Your task to perform on an android device: change timer sound Image 0: 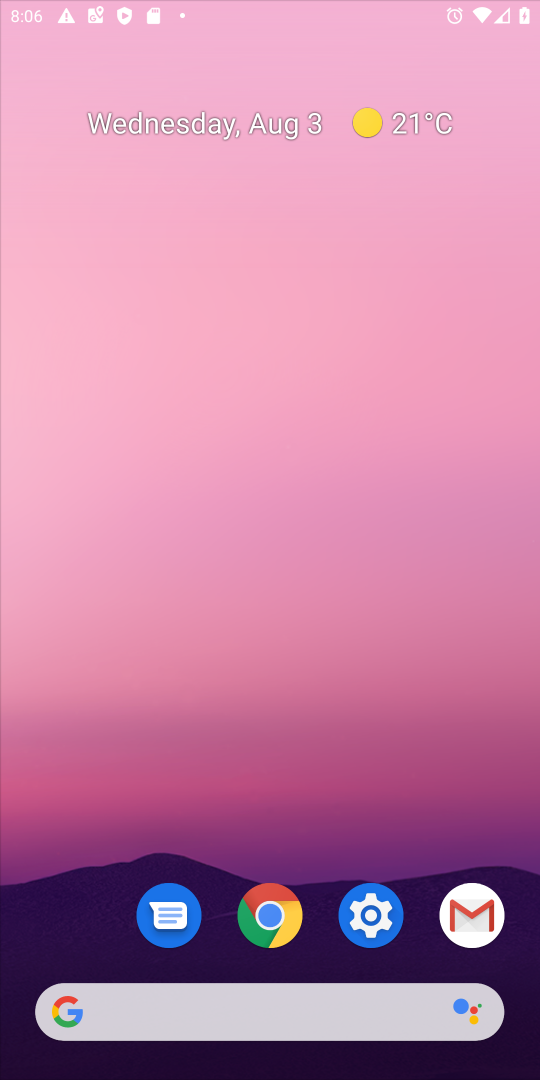
Step 0: press home button
Your task to perform on an android device: change timer sound Image 1: 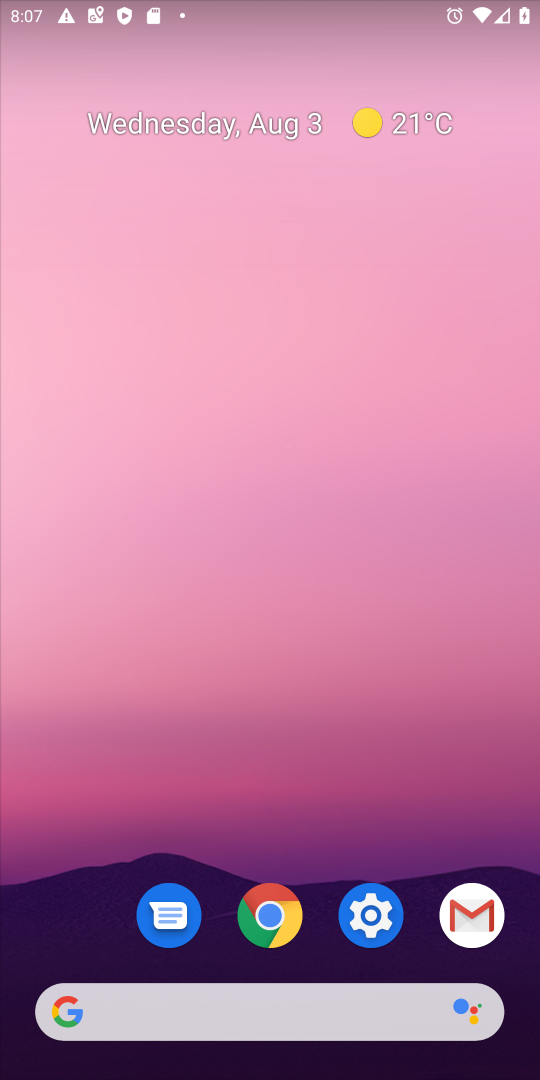
Step 1: drag from (384, 1043) to (235, 305)
Your task to perform on an android device: change timer sound Image 2: 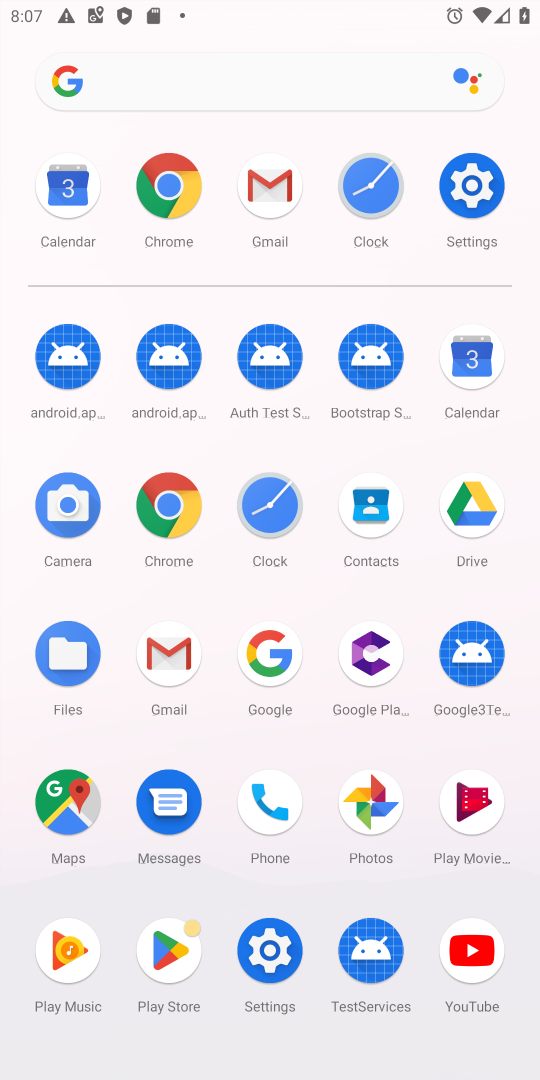
Step 2: click (463, 185)
Your task to perform on an android device: change timer sound Image 3: 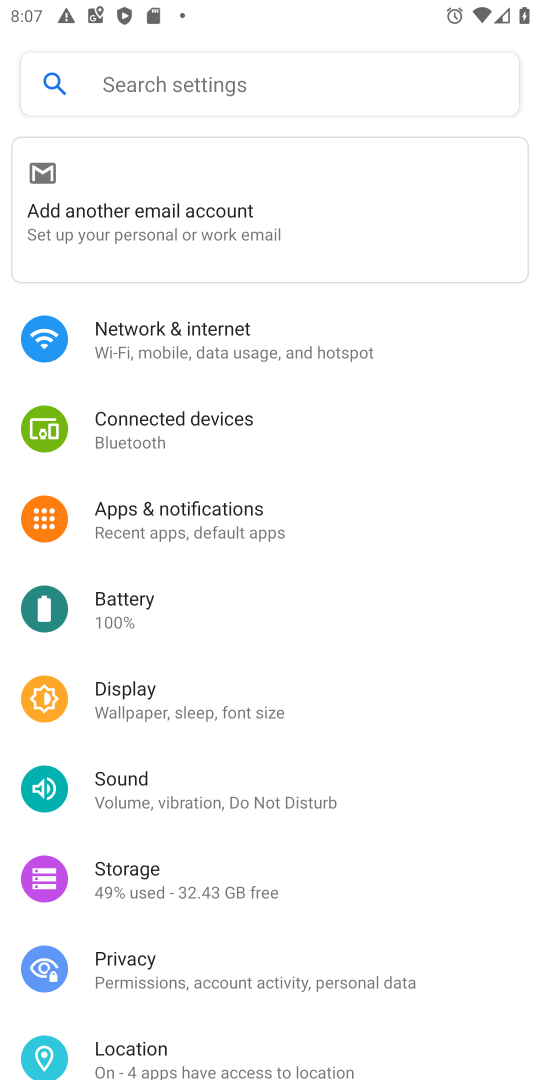
Step 3: click (209, 798)
Your task to perform on an android device: change timer sound Image 4: 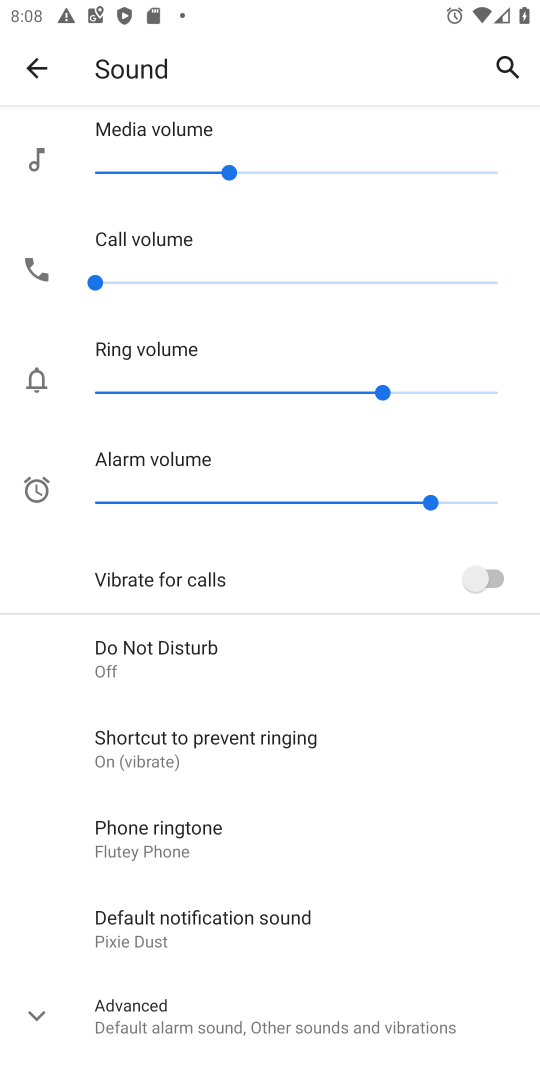
Step 4: task complete